Your task to perform on an android device: Open Amazon Image 0: 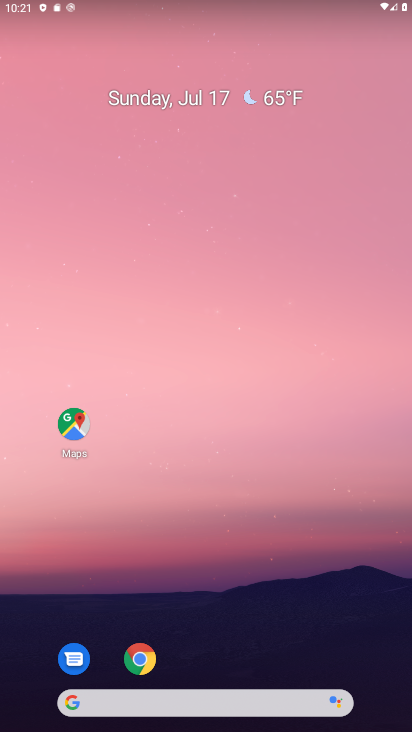
Step 0: click (144, 659)
Your task to perform on an android device: Open Amazon Image 1: 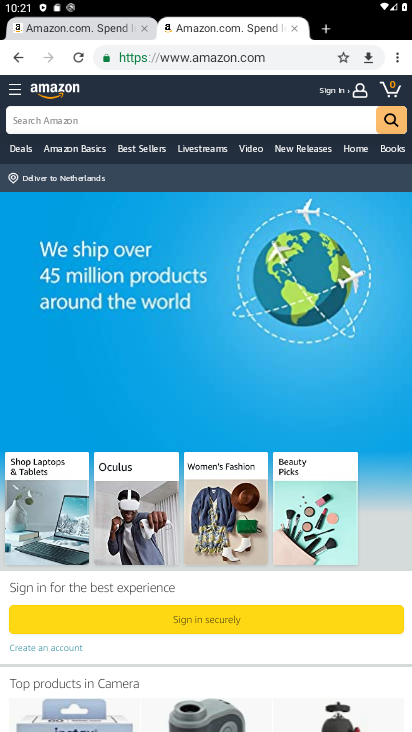
Step 1: task complete